Your task to perform on an android device: turn on sleep mode Image 0: 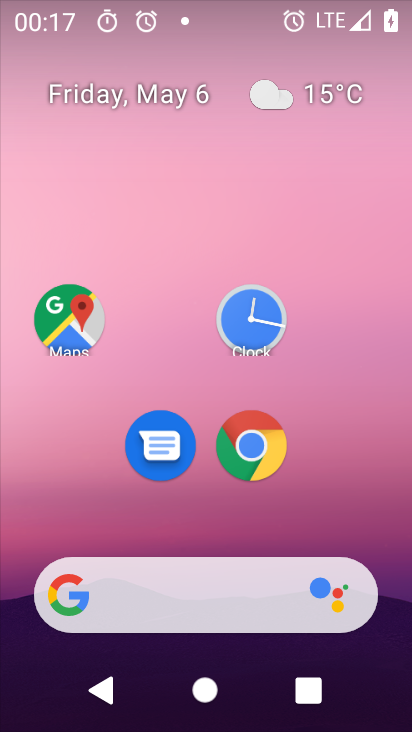
Step 0: drag from (259, 564) to (241, 44)
Your task to perform on an android device: turn on sleep mode Image 1: 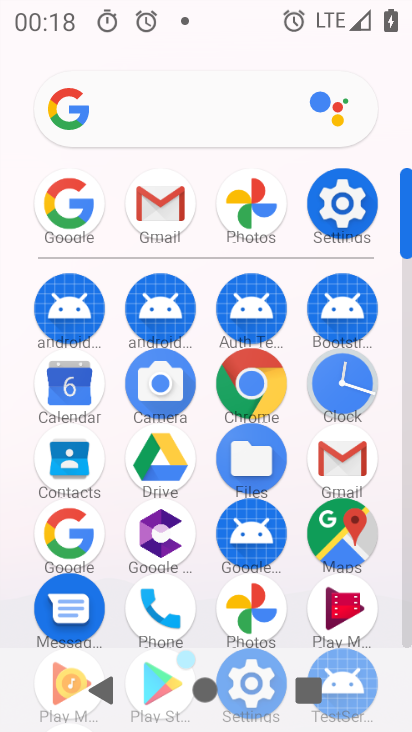
Step 1: click (328, 197)
Your task to perform on an android device: turn on sleep mode Image 2: 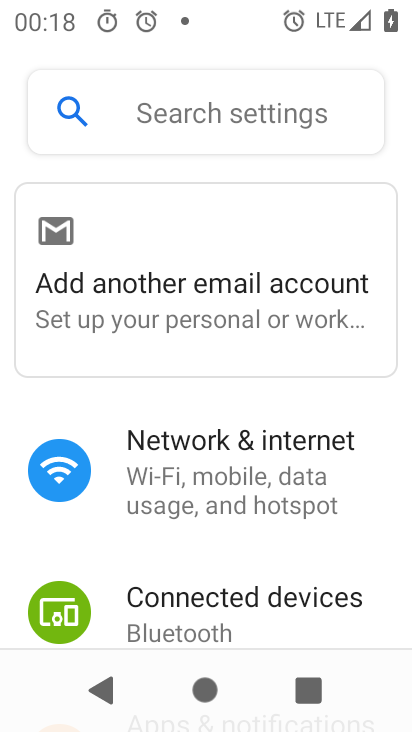
Step 2: drag from (198, 556) to (214, 43)
Your task to perform on an android device: turn on sleep mode Image 3: 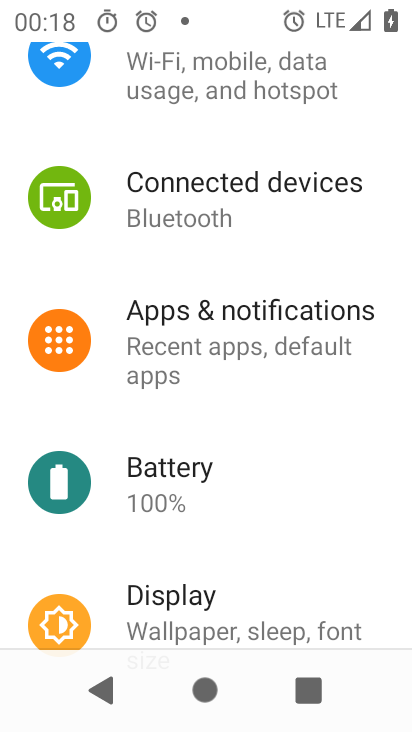
Step 3: click (192, 607)
Your task to perform on an android device: turn on sleep mode Image 4: 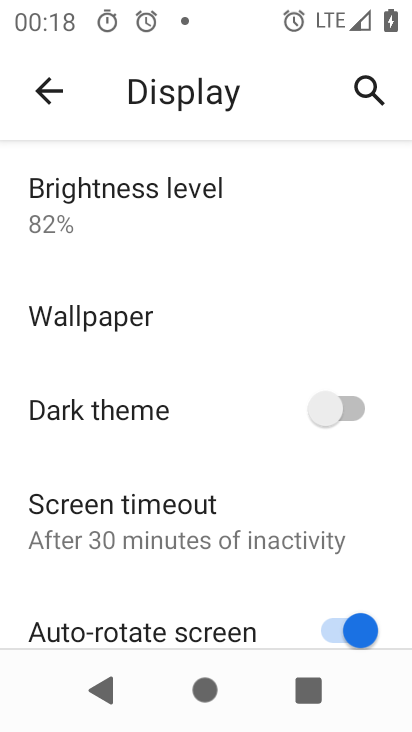
Step 4: drag from (214, 590) to (135, 22)
Your task to perform on an android device: turn on sleep mode Image 5: 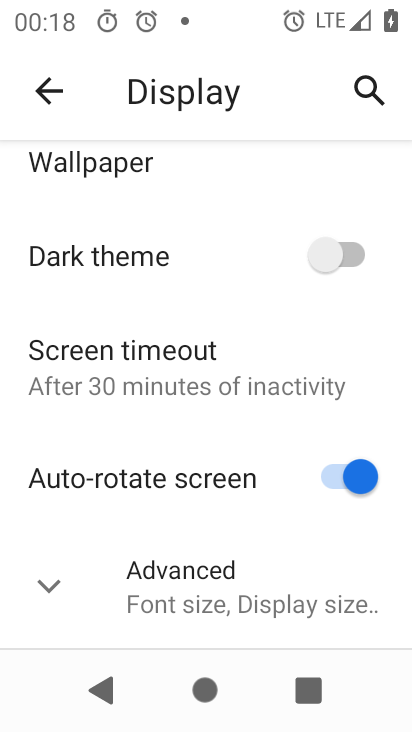
Step 5: click (181, 590)
Your task to perform on an android device: turn on sleep mode Image 6: 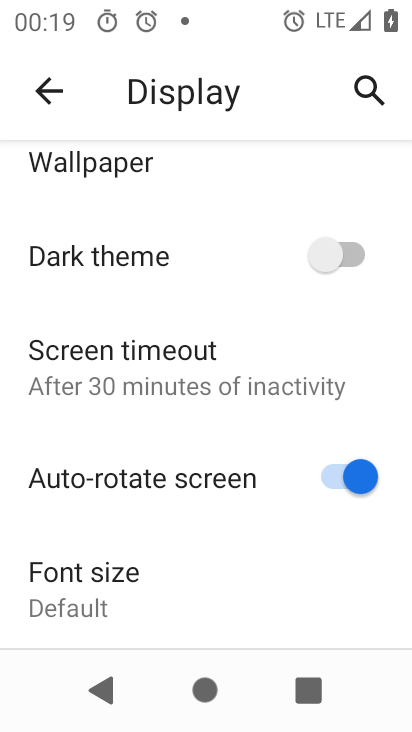
Step 6: task complete